Your task to perform on an android device: turn on translation in the chrome app Image 0: 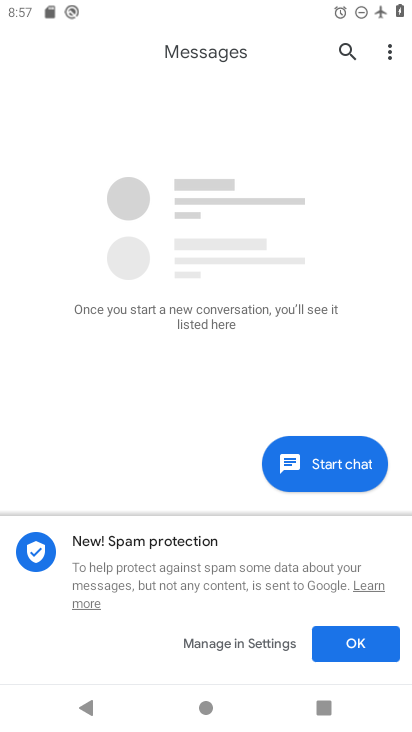
Step 0: press home button
Your task to perform on an android device: turn on translation in the chrome app Image 1: 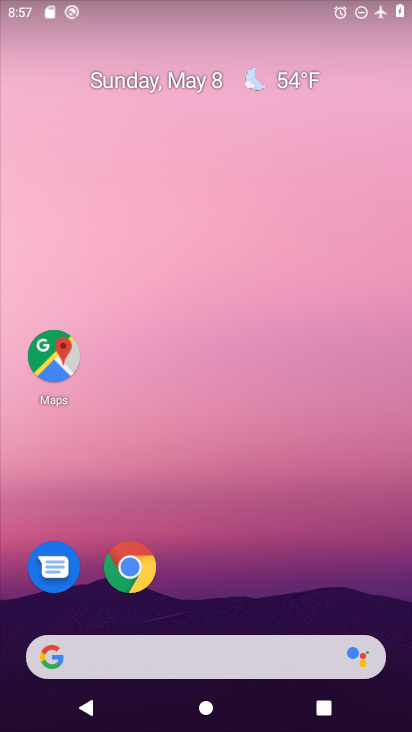
Step 1: drag from (274, 570) to (363, 73)
Your task to perform on an android device: turn on translation in the chrome app Image 2: 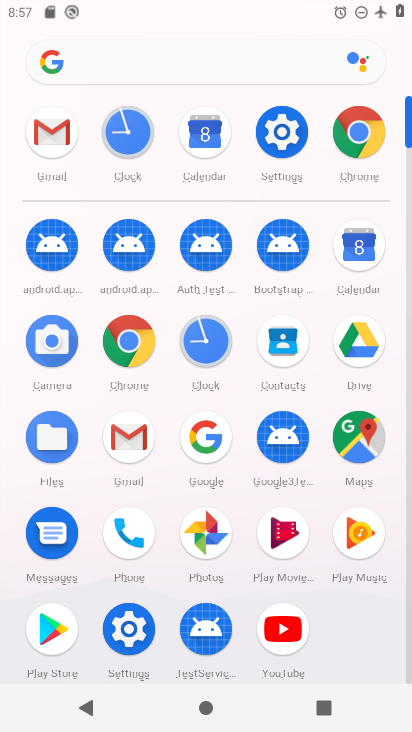
Step 2: click (357, 129)
Your task to perform on an android device: turn on translation in the chrome app Image 3: 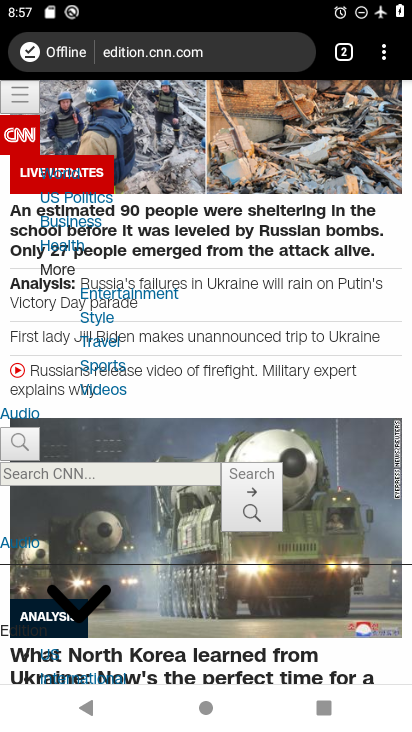
Step 3: drag from (378, 42) to (223, 583)
Your task to perform on an android device: turn on translation in the chrome app Image 4: 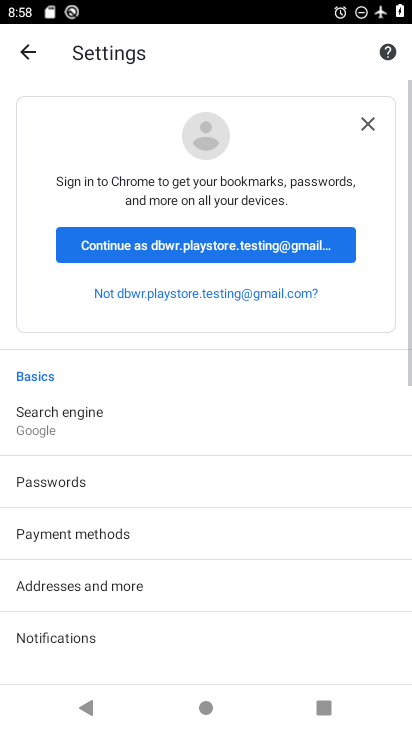
Step 4: drag from (203, 584) to (335, 260)
Your task to perform on an android device: turn on translation in the chrome app Image 5: 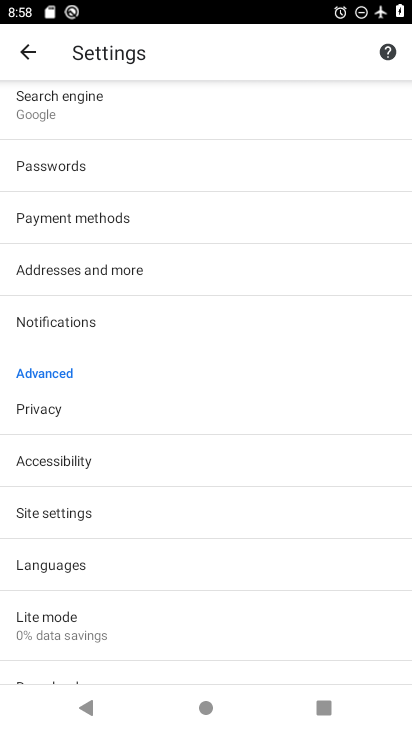
Step 5: click (79, 563)
Your task to perform on an android device: turn on translation in the chrome app Image 6: 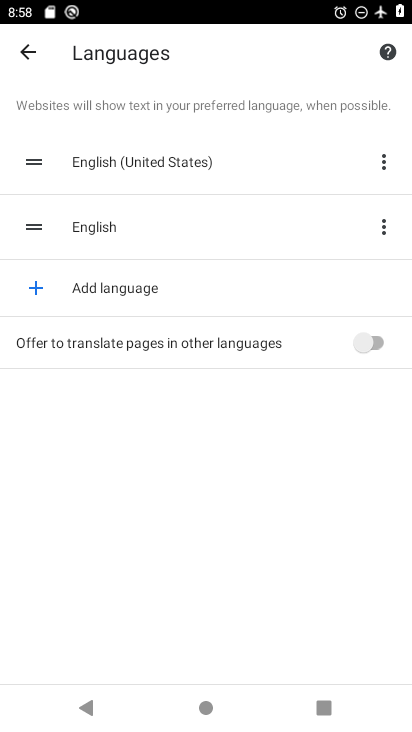
Step 6: click (381, 340)
Your task to perform on an android device: turn on translation in the chrome app Image 7: 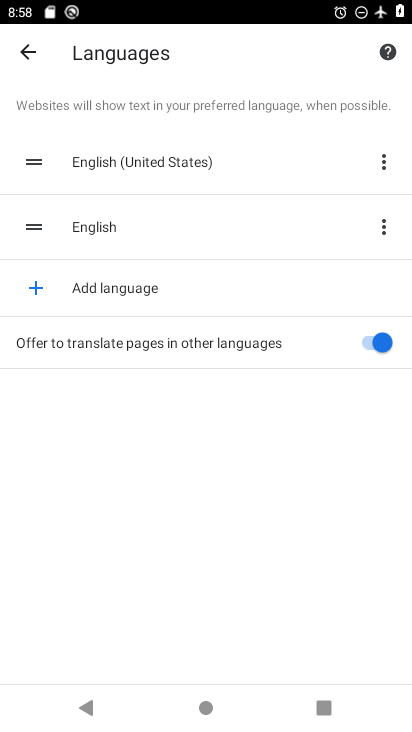
Step 7: task complete